Your task to perform on an android device: change alarm snooze length Image 0: 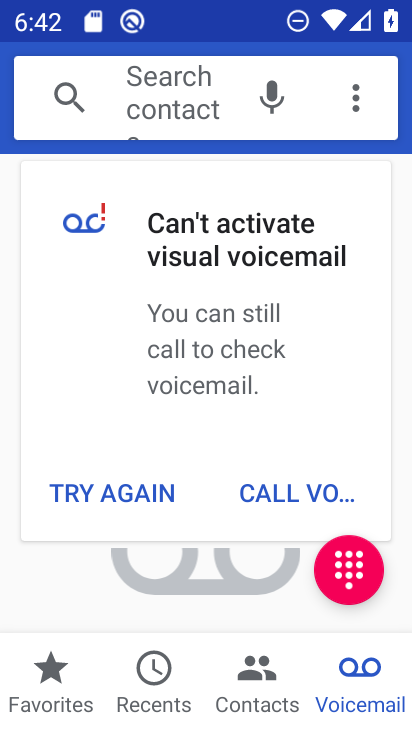
Step 0: press home button
Your task to perform on an android device: change alarm snooze length Image 1: 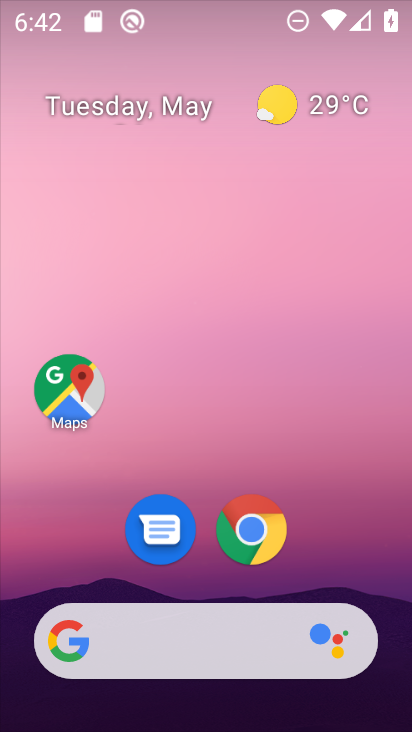
Step 1: drag from (371, 585) to (336, 72)
Your task to perform on an android device: change alarm snooze length Image 2: 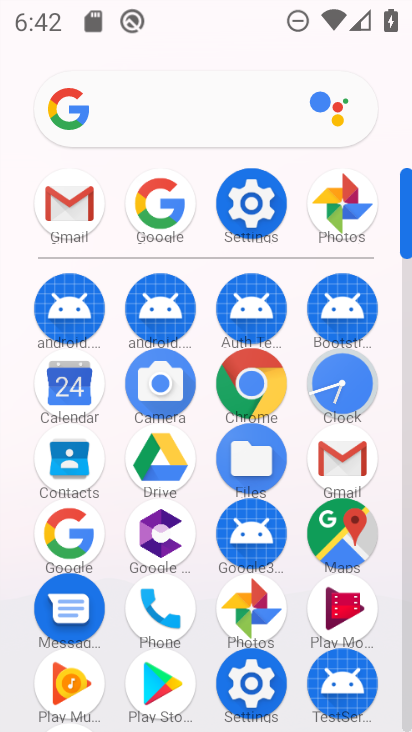
Step 2: click (330, 390)
Your task to perform on an android device: change alarm snooze length Image 3: 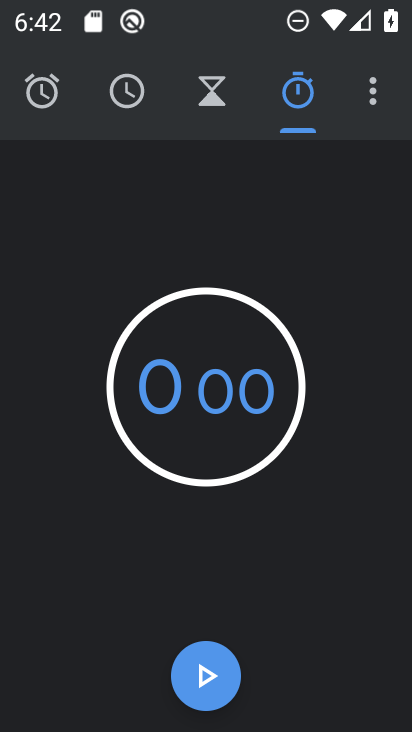
Step 3: click (372, 90)
Your task to perform on an android device: change alarm snooze length Image 4: 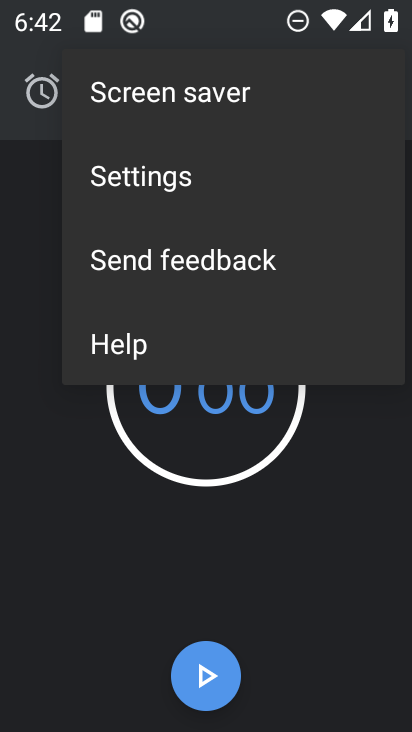
Step 4: click (189, 184)
Your task to perform on an android device: change alarm snooze length Image 5: 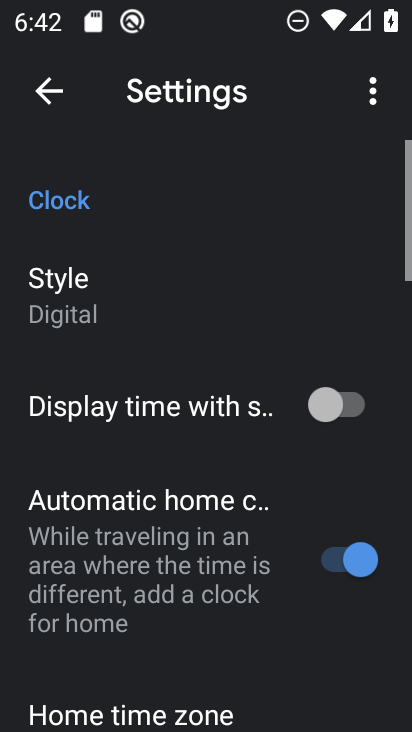
Step 5: drag from (142, 601) to (144, 118)
Your task to perform on an android device: change alarm snooze length Image 6: 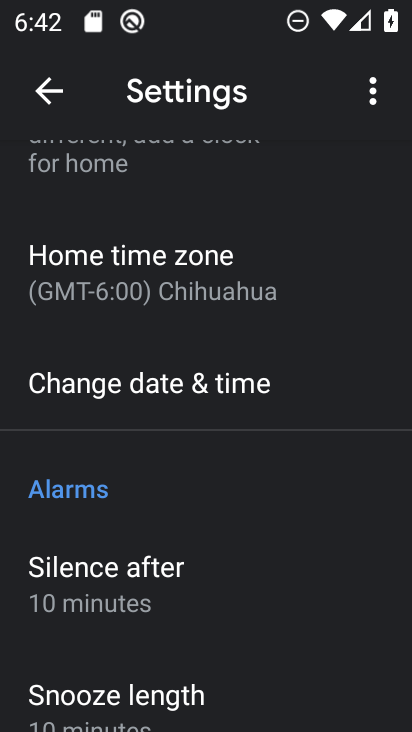
Step 6: click (177, 705)
Your task to perform on an android device: change alarm snooze length Image 7: 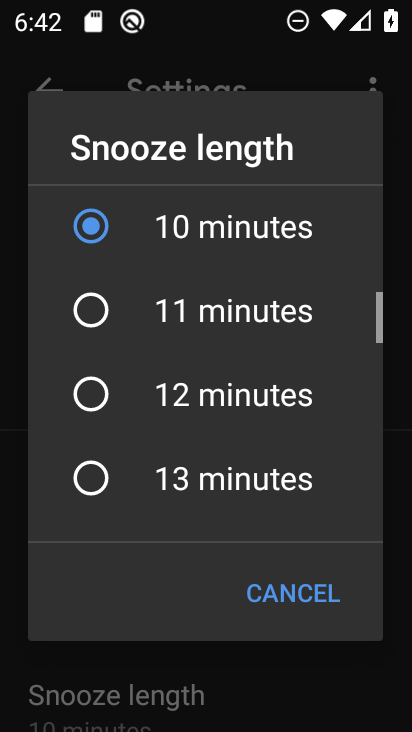
Step 7: click (141, 484)
Your task to perform on an android device: change alarm snooze length Image 8: 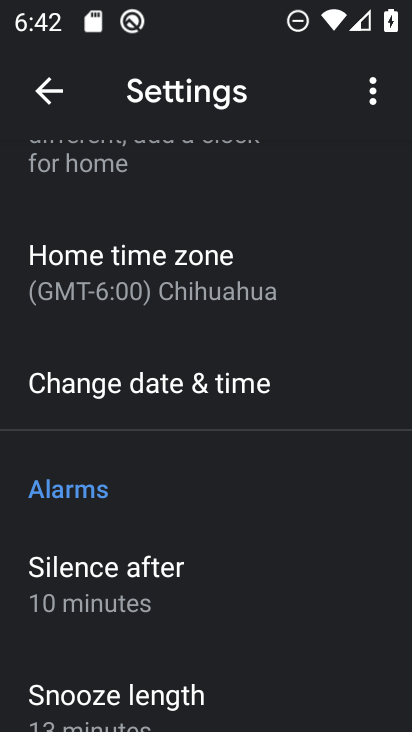
Step 8: task complete